Your task to perform on an android device: Open eBay Image 0: 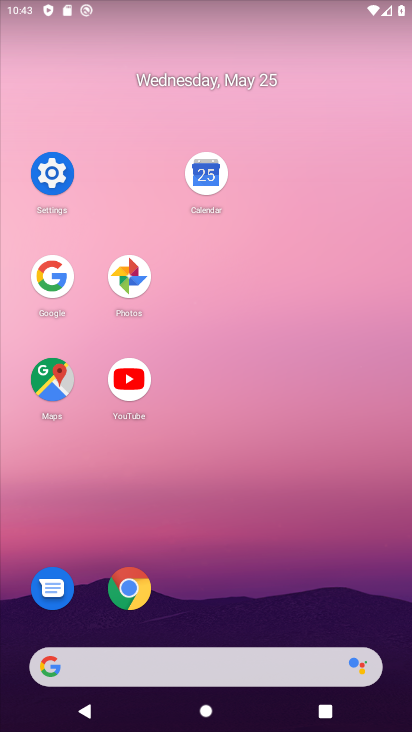
Step 0: click (128, 585)
Your task to perform on an android device: Open eBay Image 1: 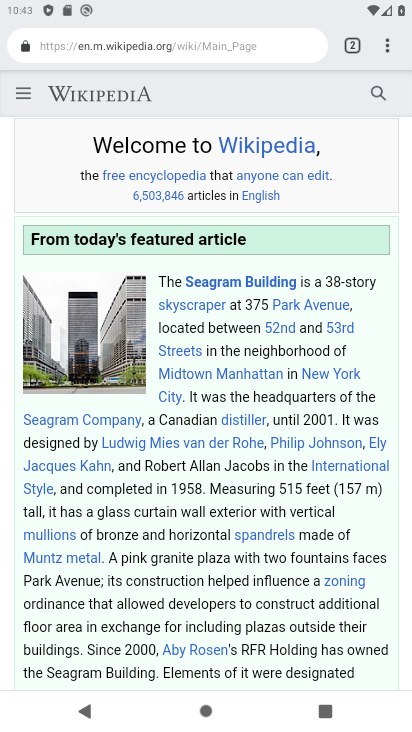
Step 1: click (356, 40)
Your task to perform on an android device: Open eBay Image 2: 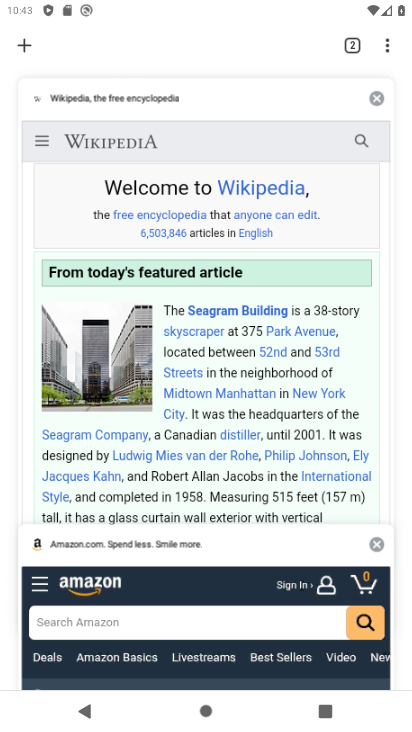
Step 2: click (34, 47)
Your task to perform on an android device: Open eBay Image 3: 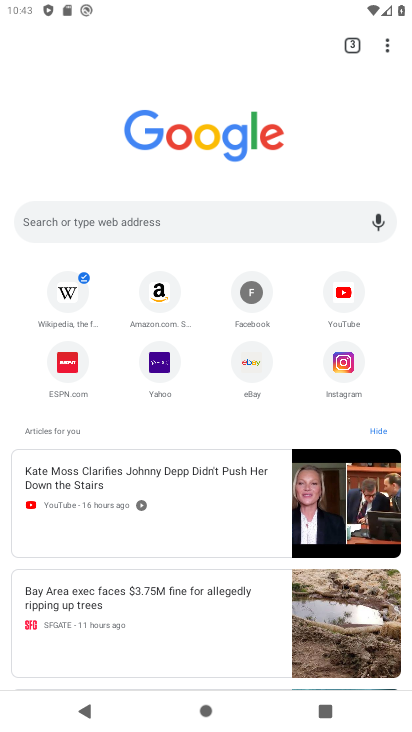
Step 3: click (249, 360)
Your task to perform on an android device: Open eBay Image 4: 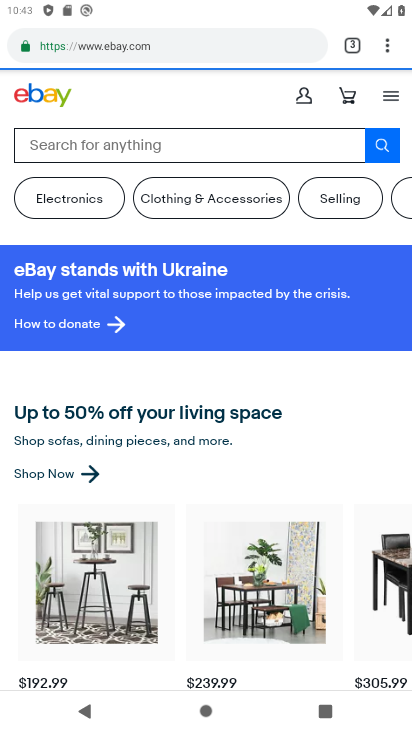
Step 4: task complete